Your task to perform on an android device: Go to Maps Image 0: 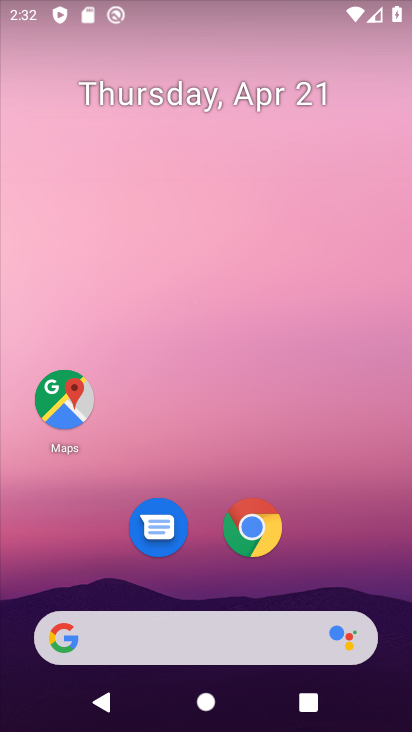
Step 0: click (62, 392)
Your task to perform on an android device: Go to Maps Image 1: 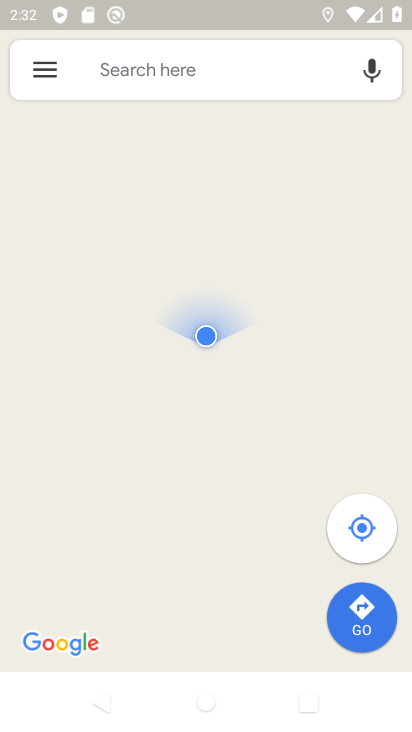
Step 1: task complete